Your task to perform on an android device: Is it going to rain this weekend? Image 0: 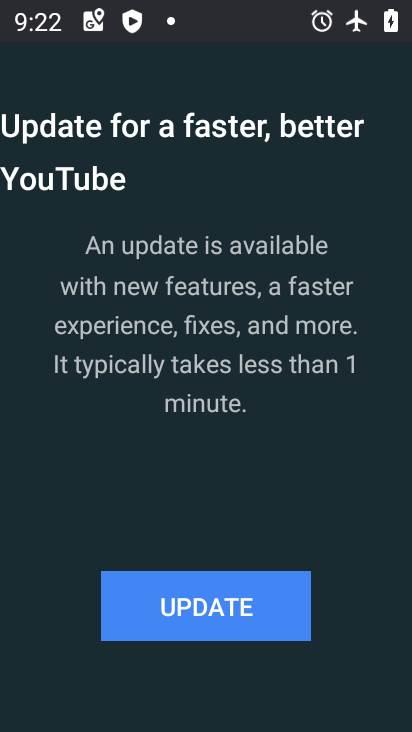
Step 0: press home button
Your task to perform on an android device: Is it going to rain this weekend? Image 1: 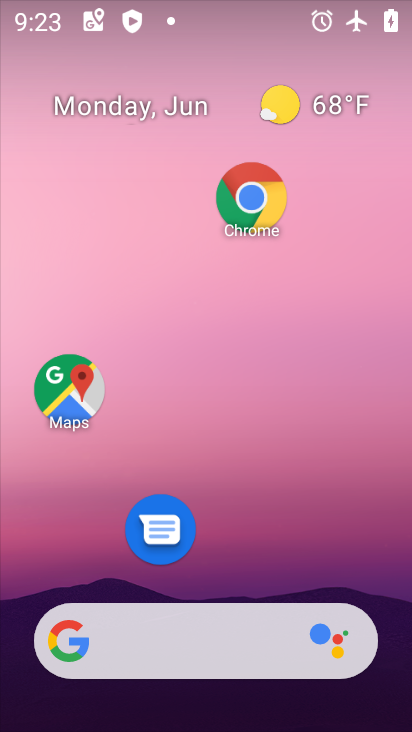
Step 1: drag from (222, 566) to (210, 152)
Your task to perform on an android device: Is it going to rain this weekend? Image 2: 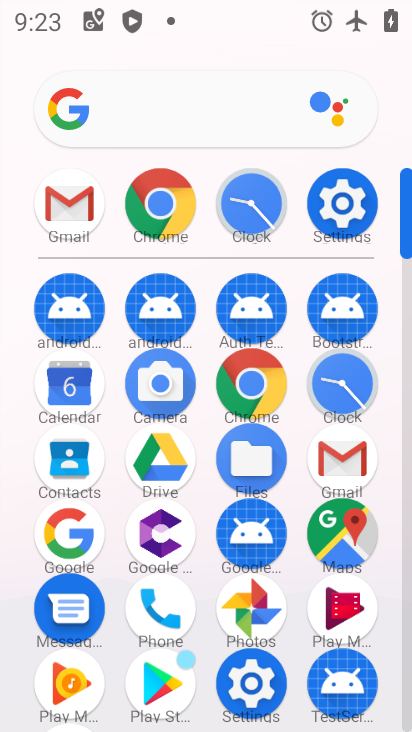
Step 2: click (75, 534)
Your task to perform on an android device: Is it going to rain this weekend? Image 3: 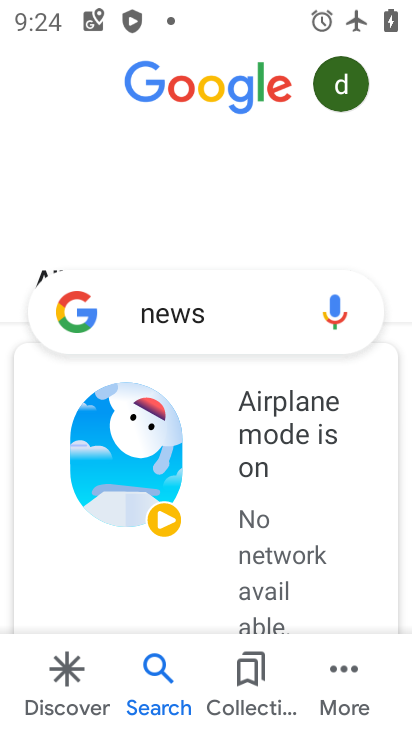
Step 3: task complete